Your task to perform on an android device: Open the phone app and click the voicemail tab. Image 0: 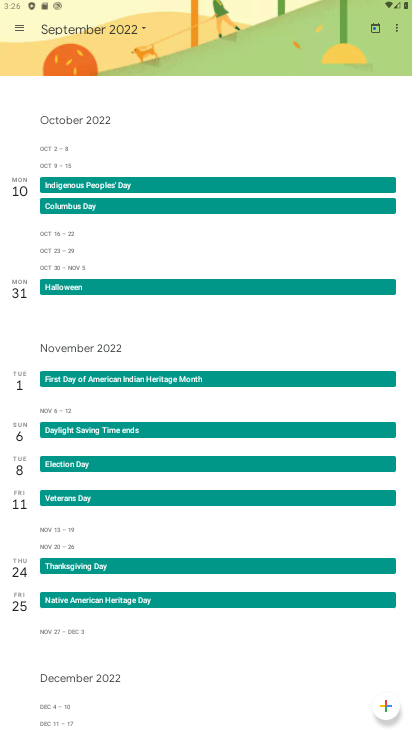
Step 0: press home button
Your task to perform on an android device: Open the phone app and click the voicemail tab. Image 1: 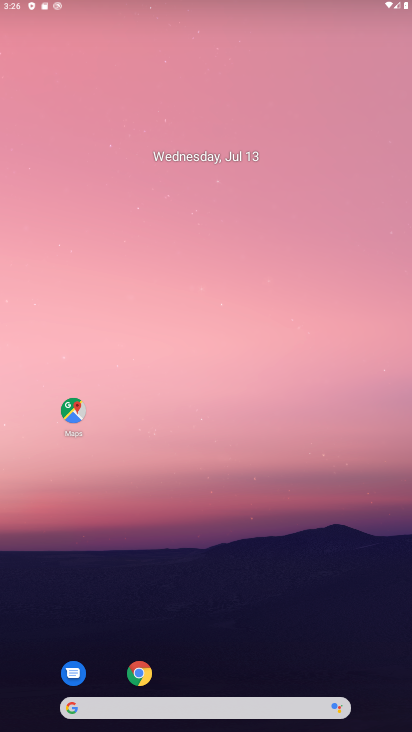
Step 1: drag from (295, 416) to (333, 104)
Your task to perform on an android device: Open the phone app and click the voicemail tab. Image 2: 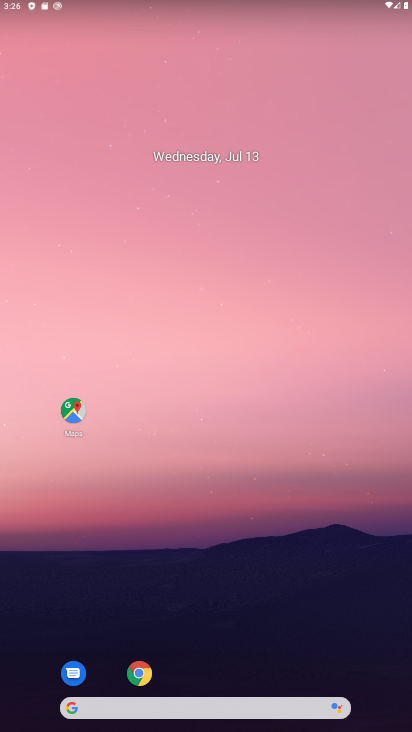
Step 2: drag from (265, 635) to (285, 96)
Your task to perform on an android device: Open the phone app and click the voicemail tab. Image 3: 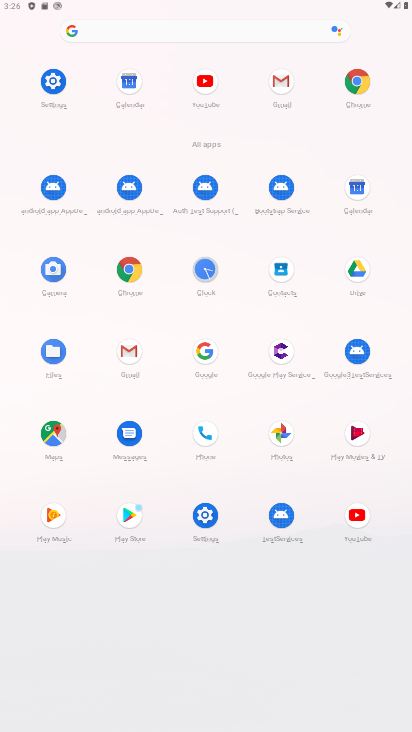
Step 3: click (195, 436)
Your task to perform on an android device: Open the phone app and click the voicemail tab. Image 4: 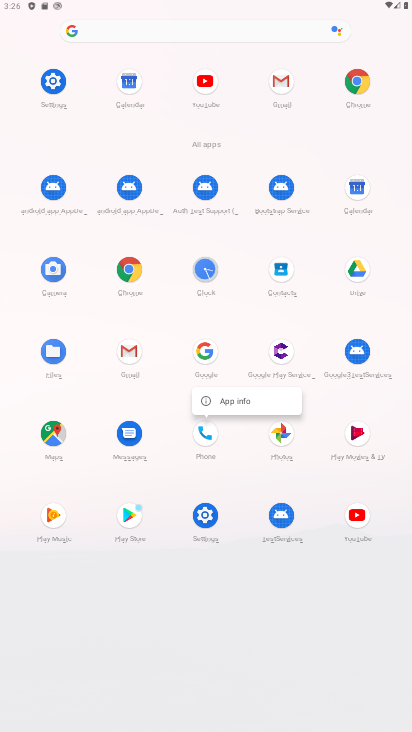
Step 4: click (204, 429)
Your task to perform on an android device: Open the phone app and click the voicemail tab. Image 5: 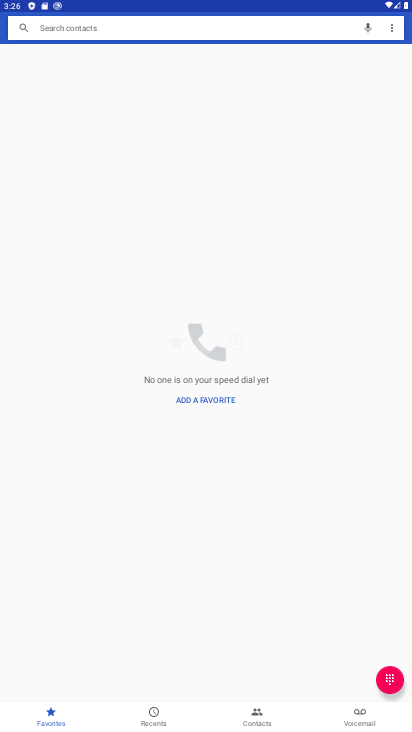
Step 5: click (357, 704)
Your task to perform on an android device: Open the phone app and click the voicemail tab. Image 6: 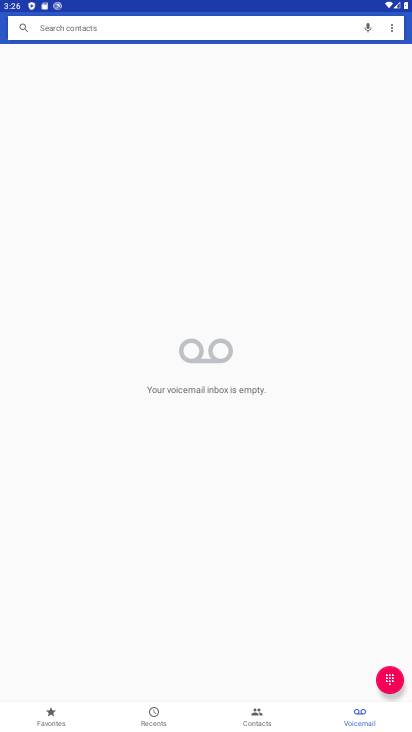
Step 6: task complete